Your task to perform on an android device: turn pop-ups on in chrome Image 0: 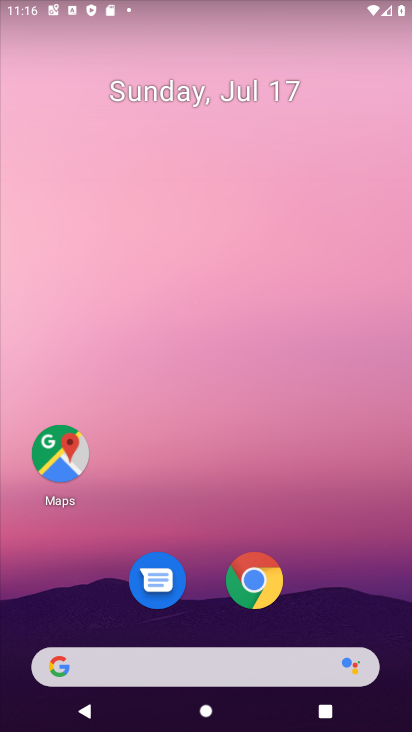
Step 0: drag from (345, 647) to (324, 226)
Your task to perform on an android device: turn pop-ups on in chrome Image 1: 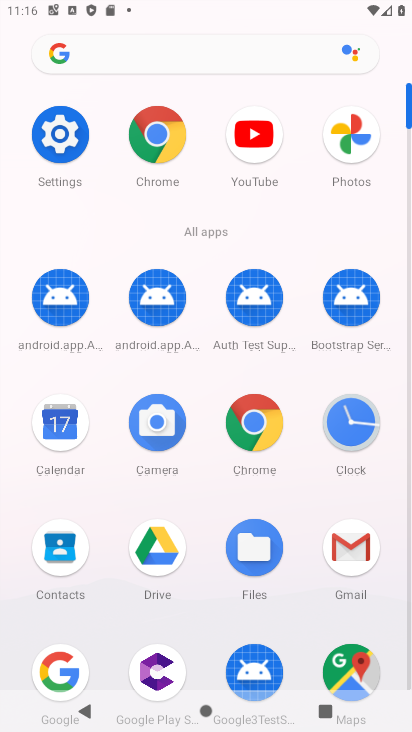
Step 1: click (152, 149)
Your task to perform on an android device: turn pop-ups on in chrome Image 2: 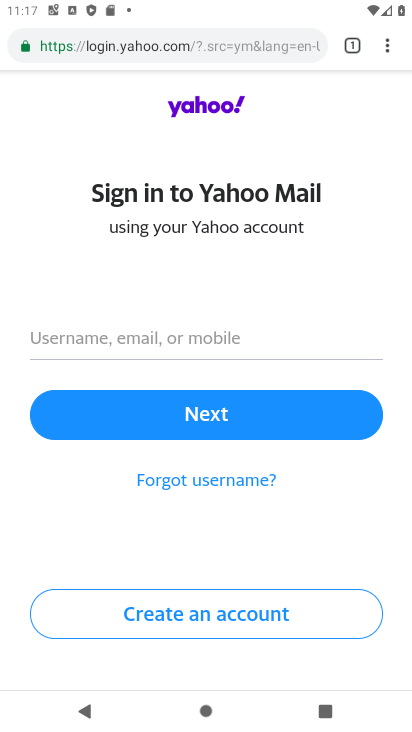
Step 2: click (385, 50)
Your task to perform on an android device: turn pop-ups on in chrome Image 3: 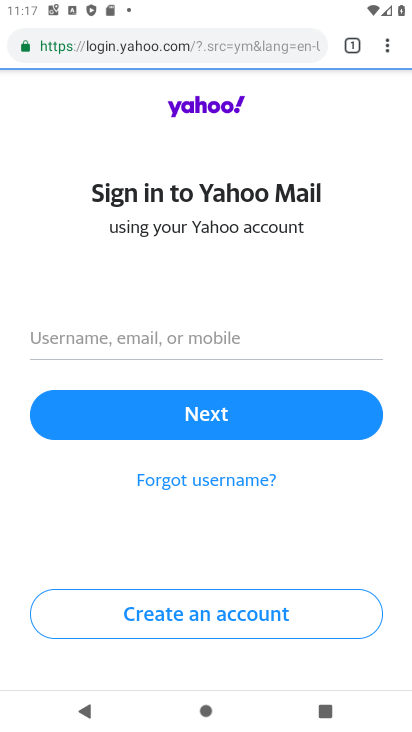
Step 3: click (385, 53)
Your task to perform on an android device: turn pop-ups on in chrome Image 4: 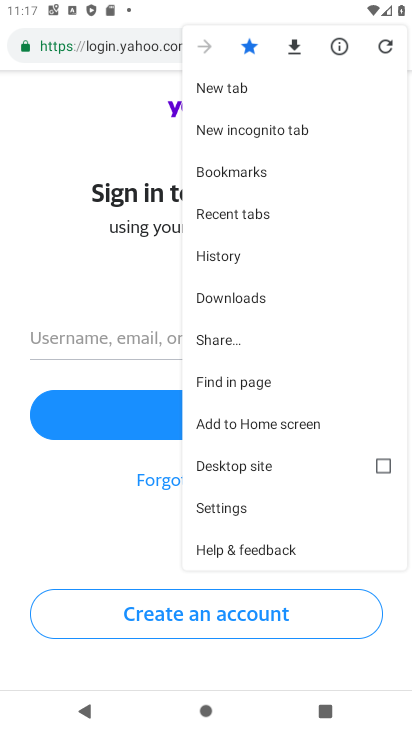
Step 4: click (271, 515)
Your task to perform on an android device: turn pop-ups on in chrome Image 5: 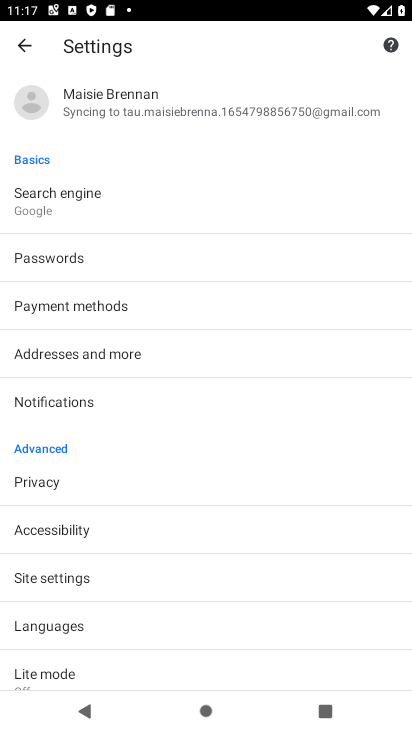
Step 5: drag from (158, 606) to (193, 236)
Your task to perform on an android device: turn pop-ups on in chrome Image 6: 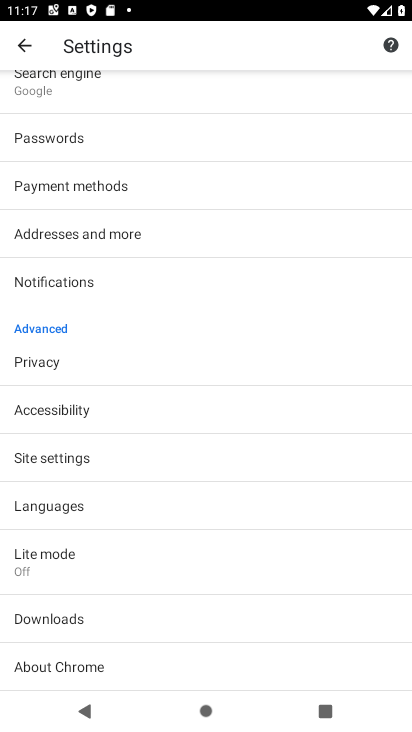
Step 6: click (85, 465)
Your task to perform on an android device: turn pop-ups on in chrome Image 7: 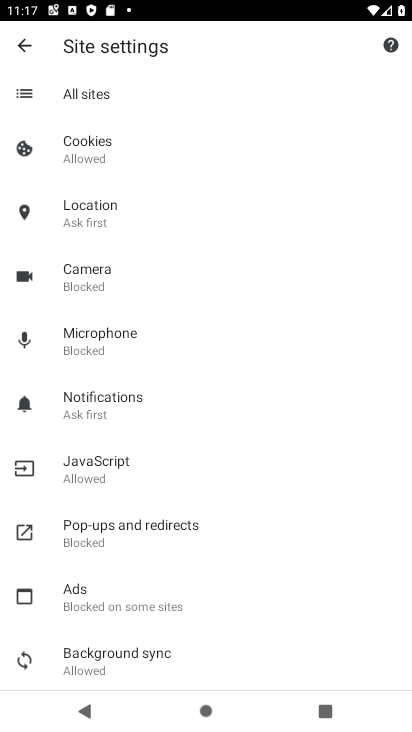
Step 7: click (175, 522)
Your task to perform on an android device: turn pop-ups on in chrome Image 8: 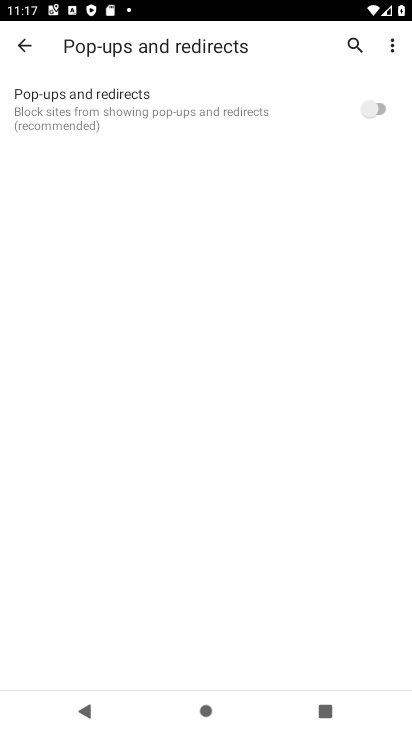
Step 8: click (216, 113)
Your task to perform on an android device: turn pop-ups on in chrome Image 9: 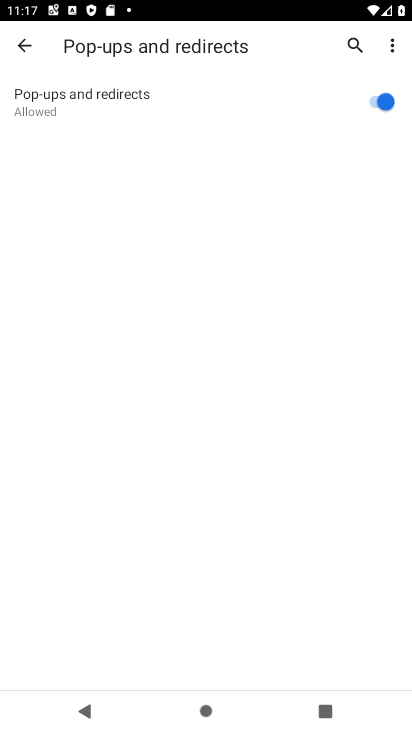
Step 9: task complete